Your task to perform on an android device: allow notifications from all sites in the chrome app Image 0: 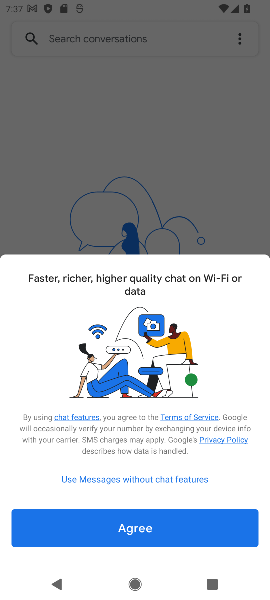
Step 0: press home button
Your task to perform on an android device: allow notifications from all sites in the chrome app Image 1: 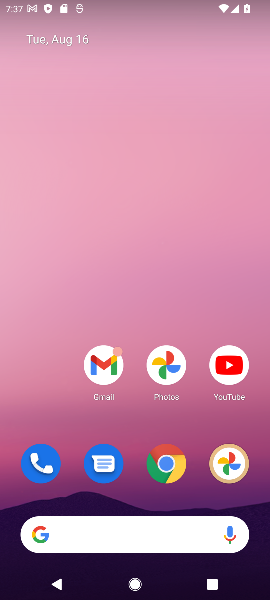
Step 1: drag from (125, 484) to (94, 8)
Your task to perform on an android device: allow notifications from all sites in the chrome app Image 2: 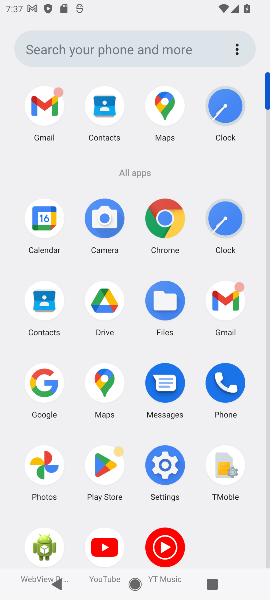
Step 2: click (162, 224)
Your task to perform on an android device: allow notifications from all sites in the chrome app Image 3: 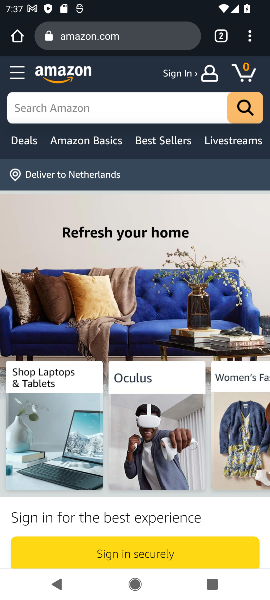
Step 3: click (247, 35)
Your task to perform on an android device: allow notifications from all sites in the chrome app Image 4: 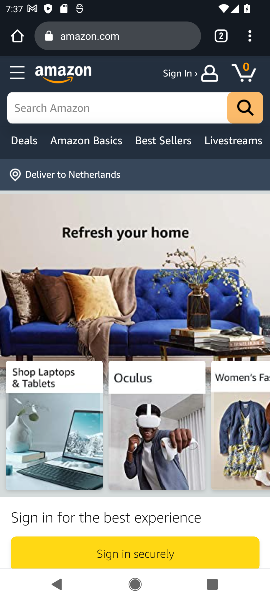
Step 4: click (246, 25)
Your task to perform on an android device: allow notifications from all sites in the chrome app Image 5: 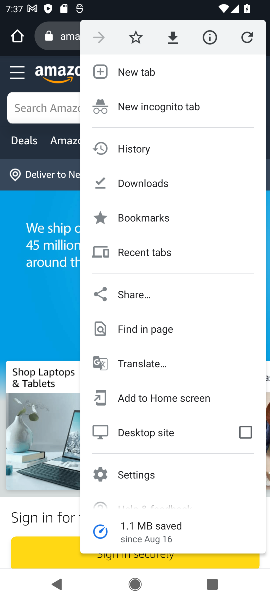
Step 5: click (141, 472)
Your task to perform on an android device: allow notifications from all sites in the chrome app Image 6: 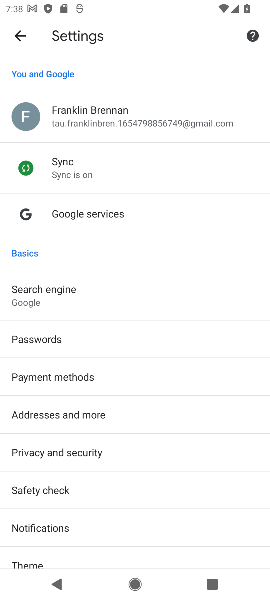
Step 6: drag from (88, 404) to (96, 107)
Your task to perform on an android device: allow notifications from all sites in the chrome app Image 7: 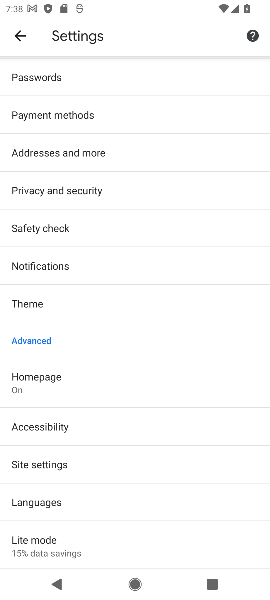
Step 7: click (45, 266)
Your task to perform on an android device: allow notifications from all sites in the chrome app Image 8: 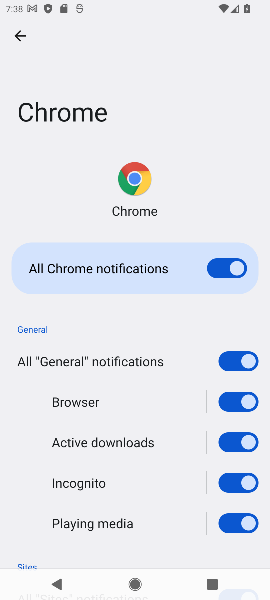
Step 8: task complete